Your task to perform on an android device: See recent photos Image 0: 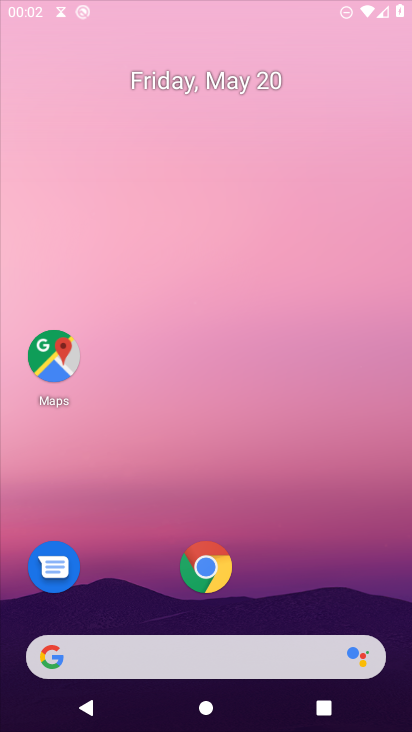
Step 0: press home button
Your task to perform on an android device: See recent photos Image 1: 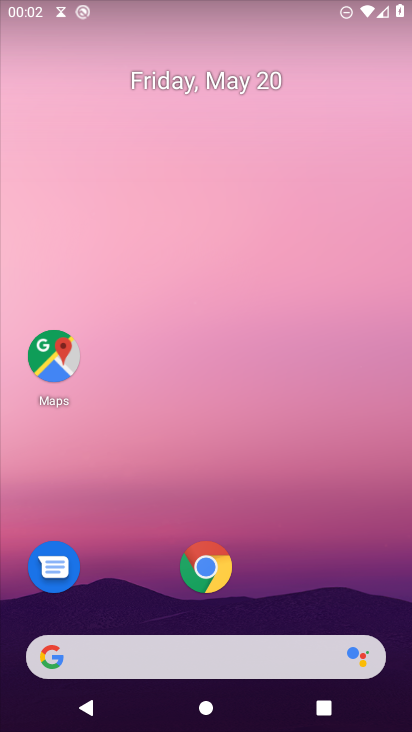
Step 1: drag from (259, 608) to (242, 100)
Your task to perform on an android device: See recent photos Image 2: 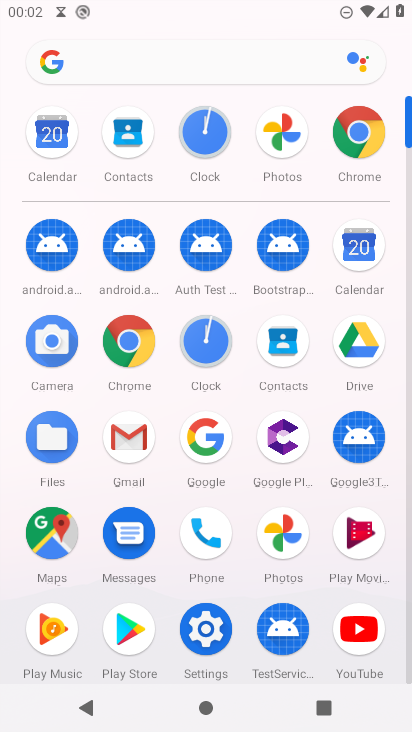
Step 2: click (280, 128)
Your task to perform on an android device: See recent photos Image 3: 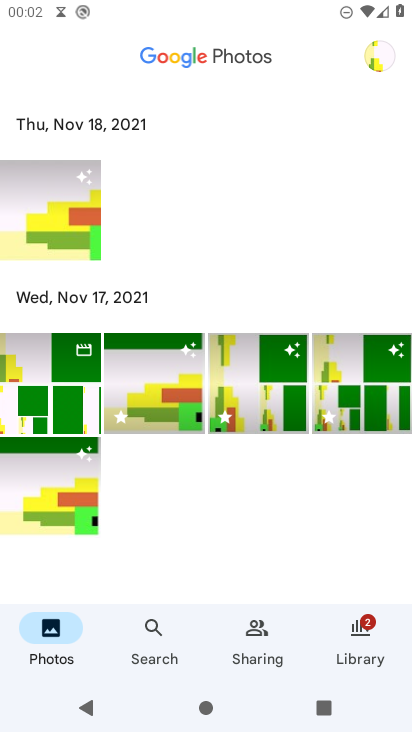
Step 3: task complete